Your task to perform on an android device: Find coffee shops on Maps Image 0: 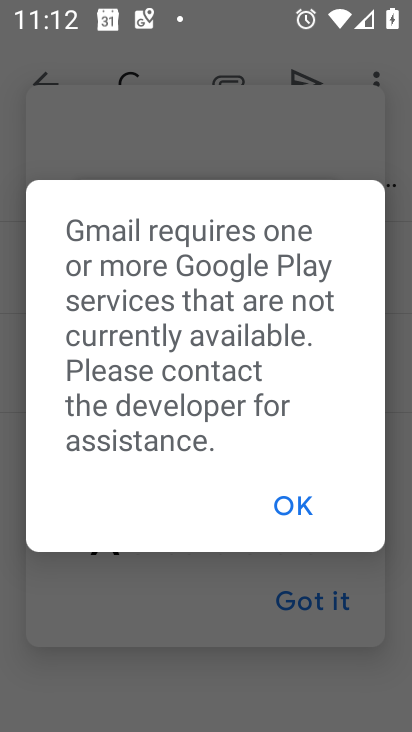
Step 0: press home button
Your task to perform on an android device: Find coffee shops on Maps Image 1: 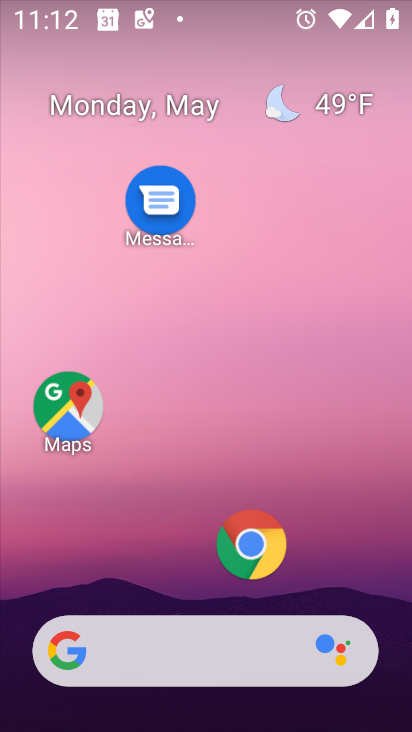
Step 1: drag from (122, 582) to (246, 53)
Your task to perform on an android device: Find coffee shops on Maps Image 2: 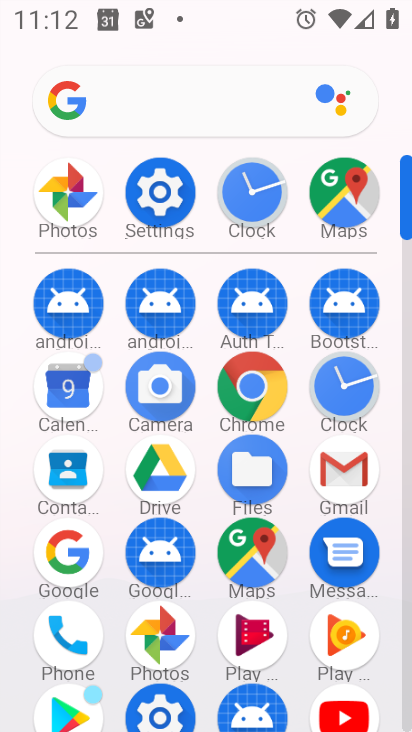
Step 2: click (233, 557)
Your task to perform on an android device: Find coffee shops on Maps Image 3: 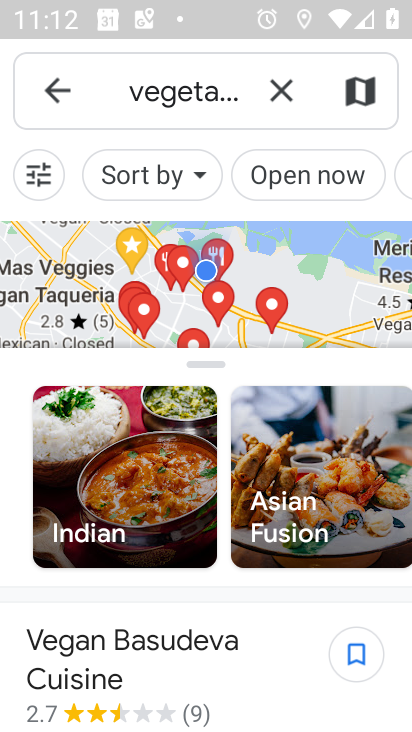
Step 3: click (265, 89)
Your task to perform on an android device: Find coffee shops on Maps Image 4: 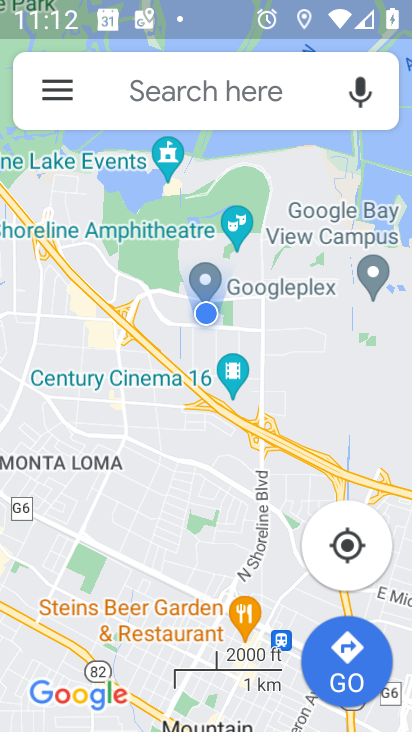
Step 4: click (265, 89)
Your task to perform on an android device: Find coffee shops on Maps Image 5: 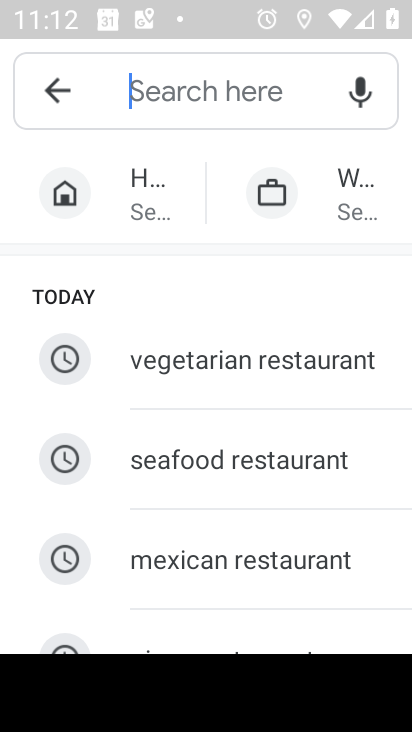
Step 5: type "coffee shops"
Your task to perform on an android device: Find coffee shops on Maps Image 6: 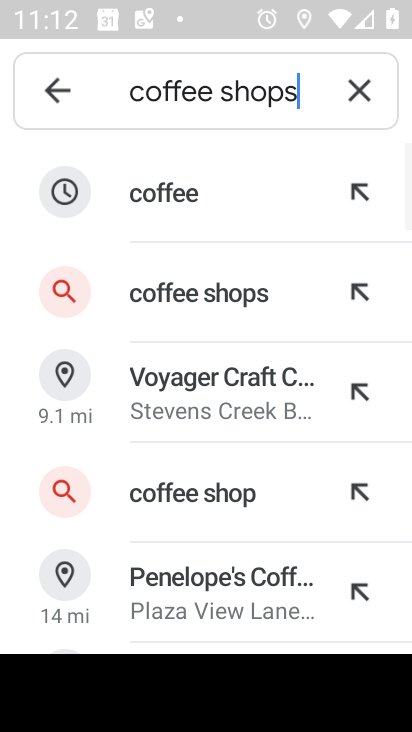
Step 6: click (150, 269)
Your task to perform on an android device: Find coffee shops on Maps Image 7: 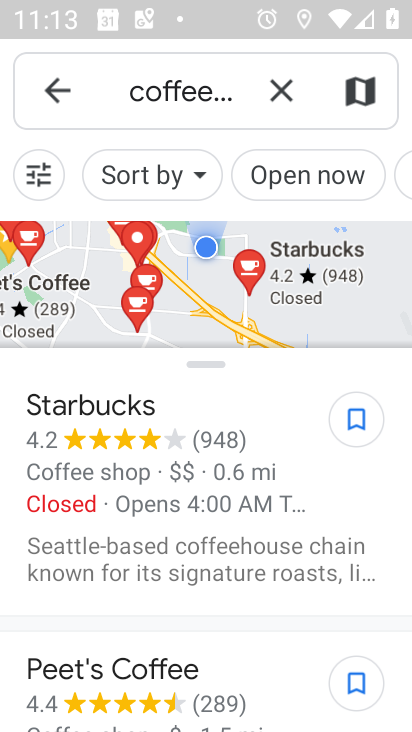
Step 7: task complete